Your task to perform on an android device: Do I have any events tomorrow? Image 0: 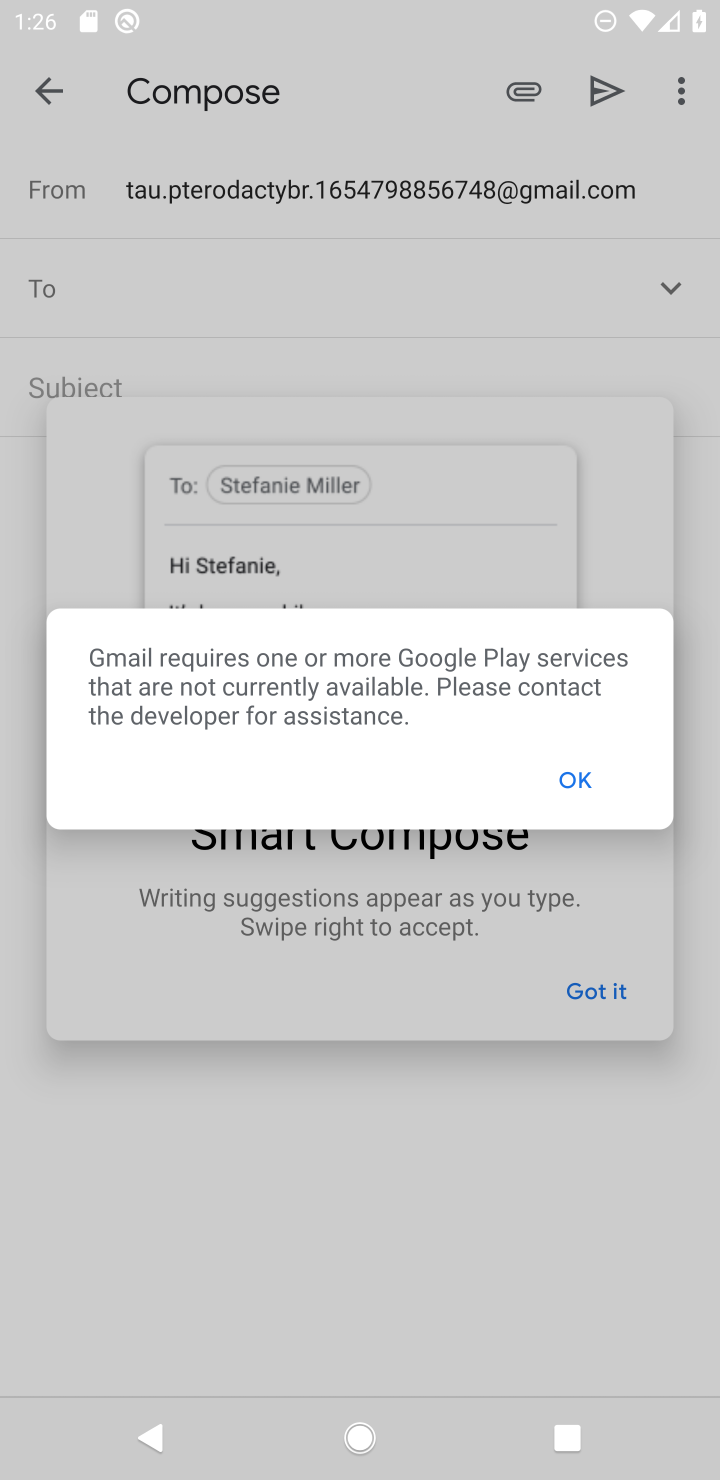
Step 0: press home button
Your task to perform on an android device: Do I have any events tomorrow? Image 1: 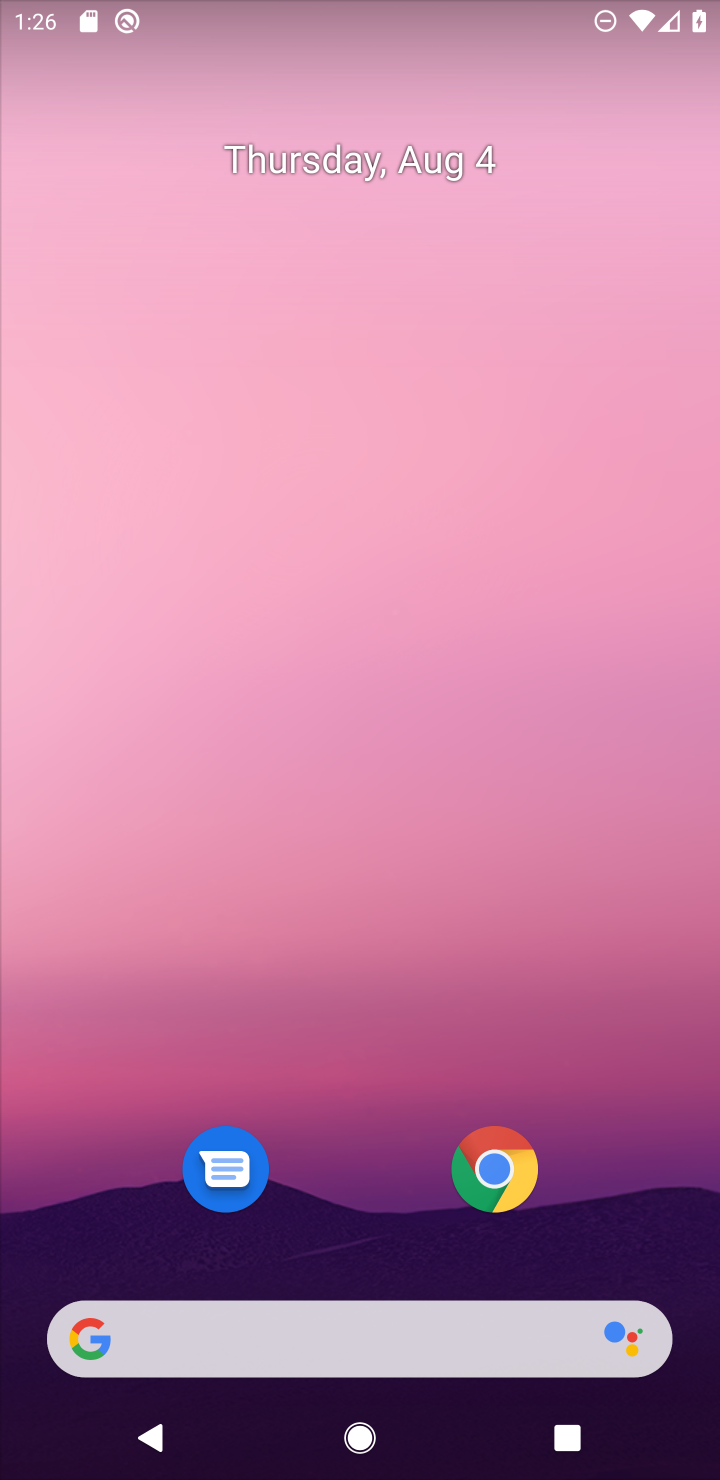
Step 1: press home button
Your task to perform on an android device: Do I have any events tomorrow? Image 2: 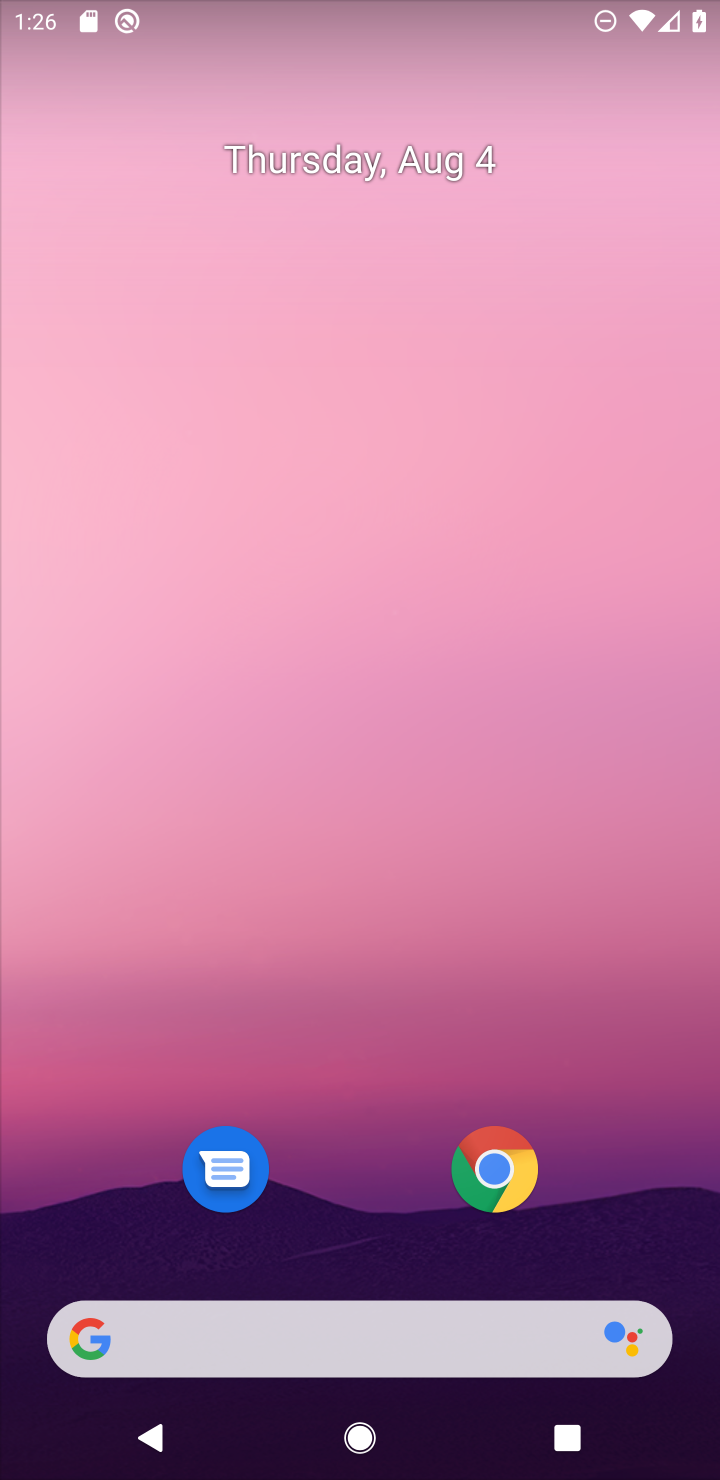
Step 2: drag from (369, 1212) to (489, 11)
Your task to perform on an android device: Do I have any events tomorrow? Image 3: 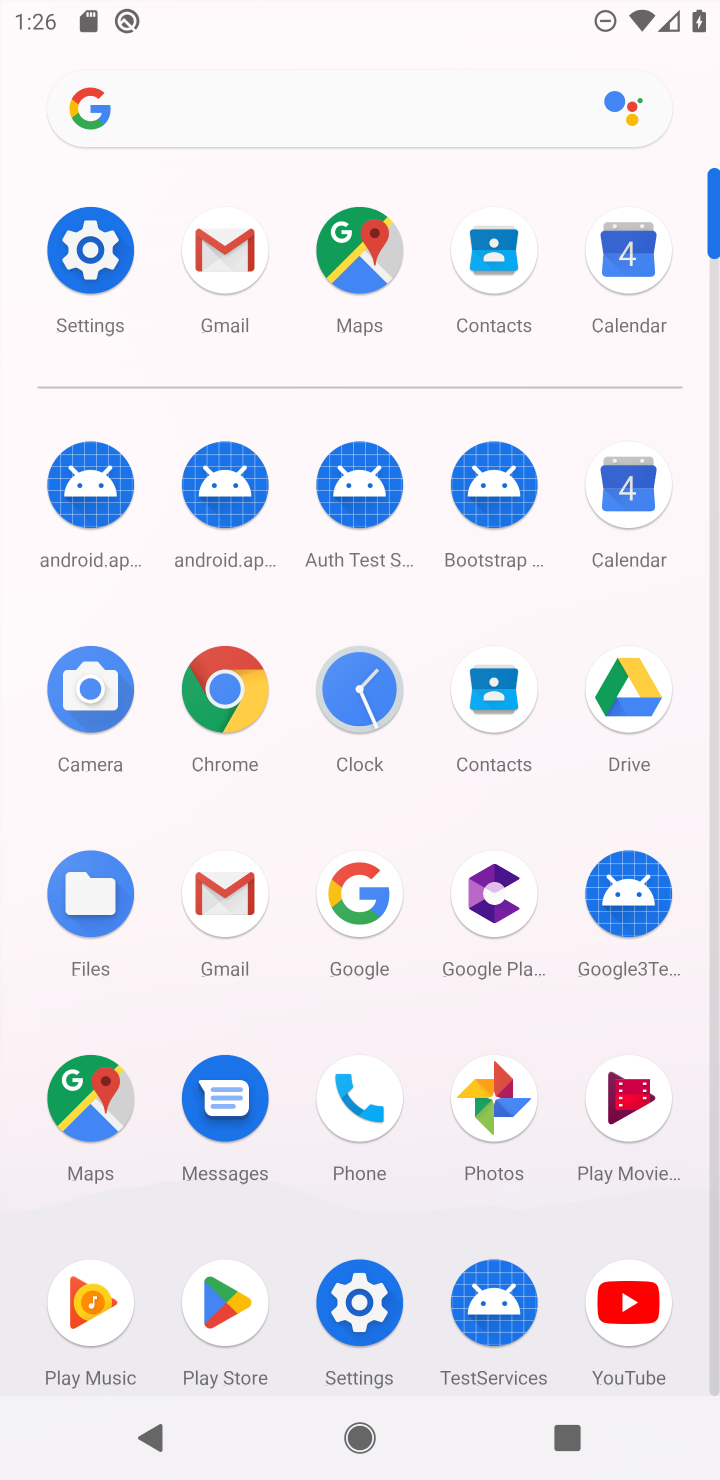
Step 3: click (628, 253)
Your task to perform on an android device: Do I have any events tomorrow? Image 4: 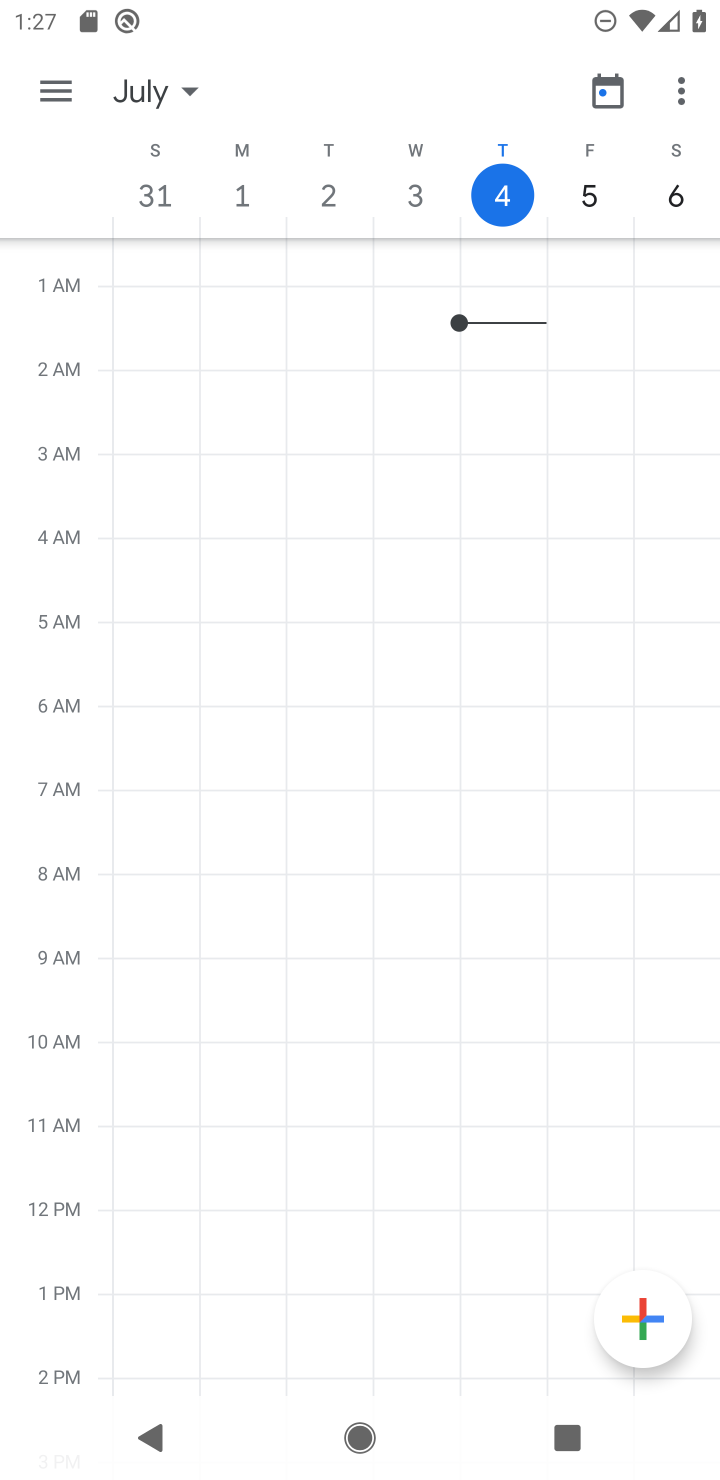
Step 4: click (60, 94)
Your task to perform on an android device: Do I have any events tomorrow? Image 5: 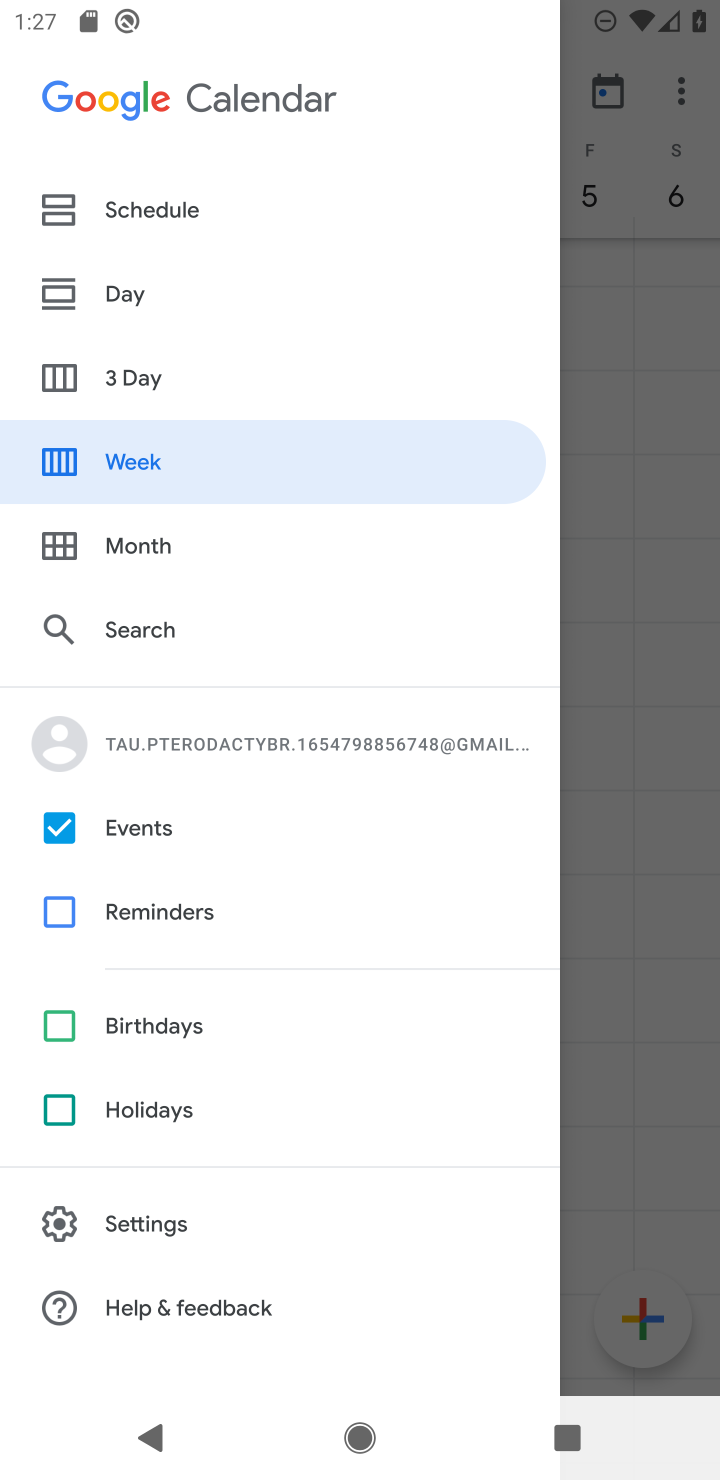
Step 5: click (116, 290)
Your task to perform on an android device: Do I have any events tomorrow? Image 6: 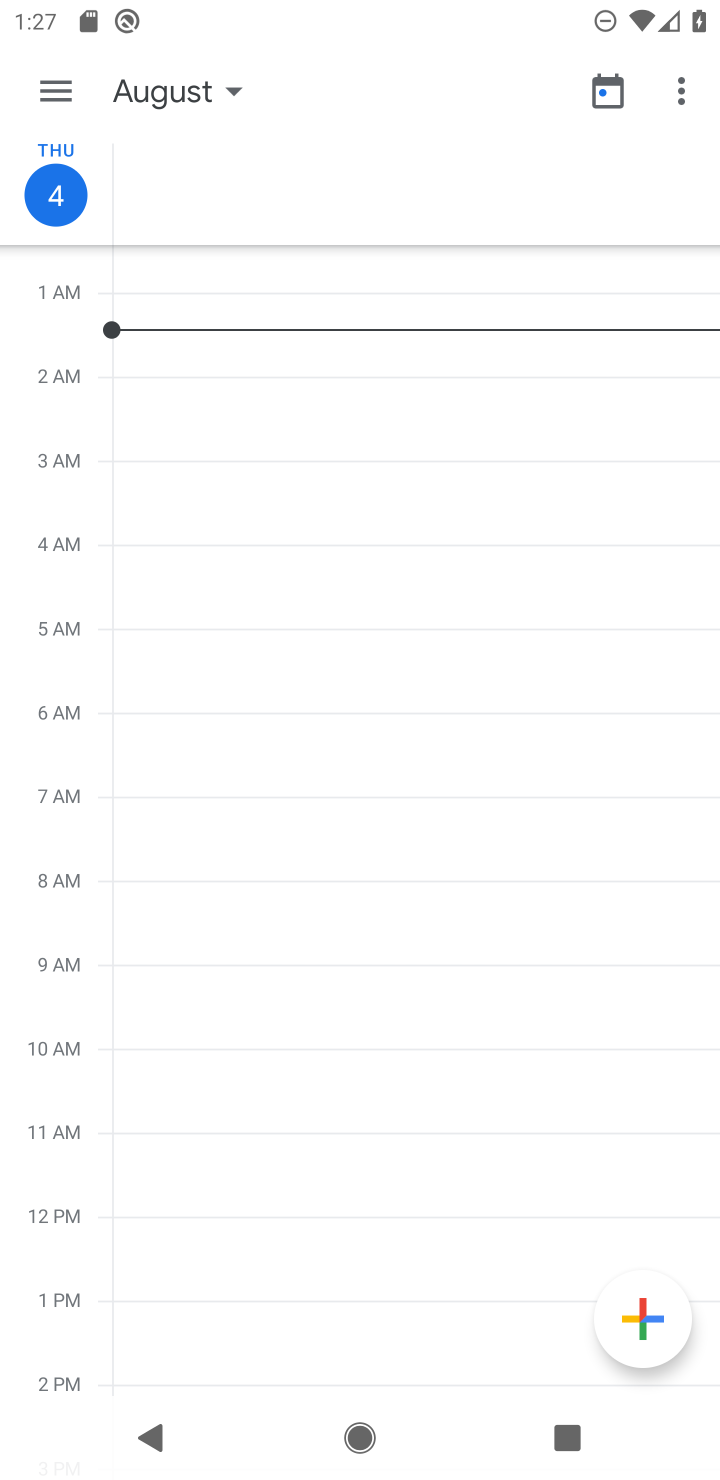
Step 6: task complete